Your task to perform on an android device: turn off data saver in the chrome app Image 0: 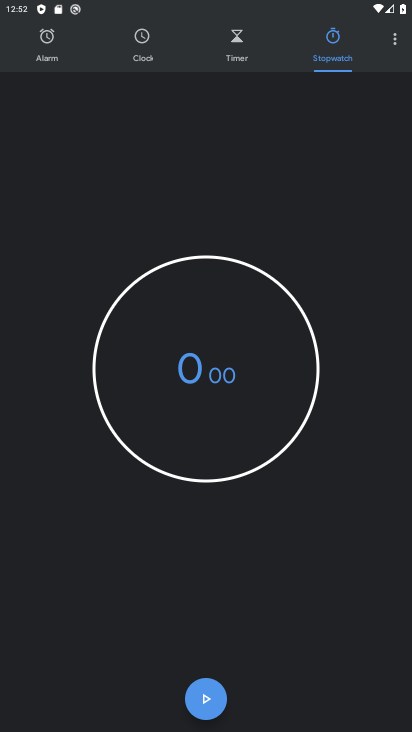
Step 0: press home button
Your task to perform on an android device: turn off data saver in the chrome app Image 1: 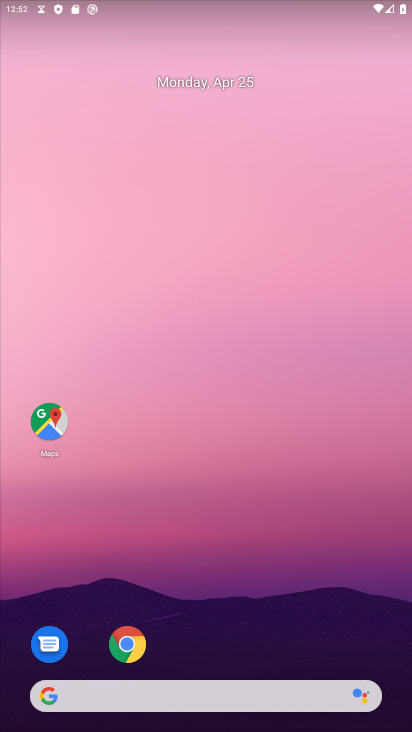
Step 1: click (127, 645)
Your task to perform on an android device: turn off data saver in the chrome app Image 2: 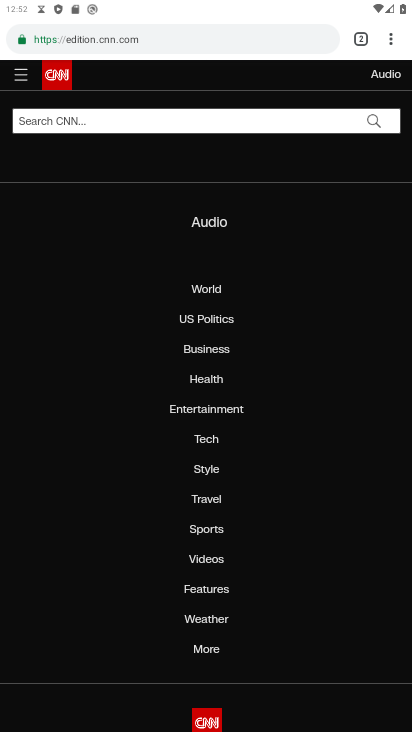
Step 2: drag from (389, 43) to (253, 520)
Your task to perform on an android device: turn off data saver in the chrome app Image 3: 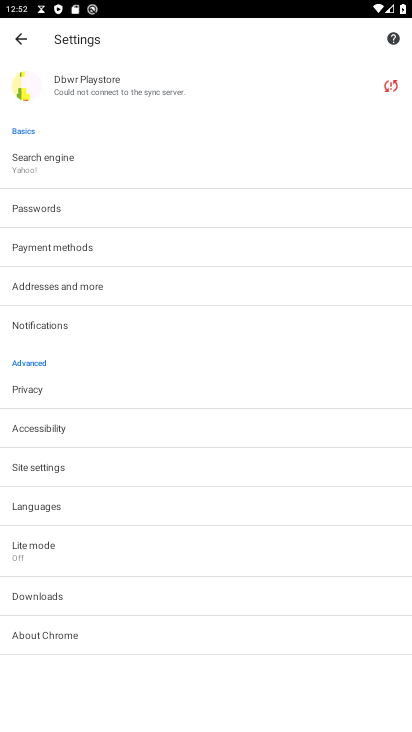
Step 3: click (32, 545)
Your task to perform on an android device: turn off data saver in the chrome app Image 4: 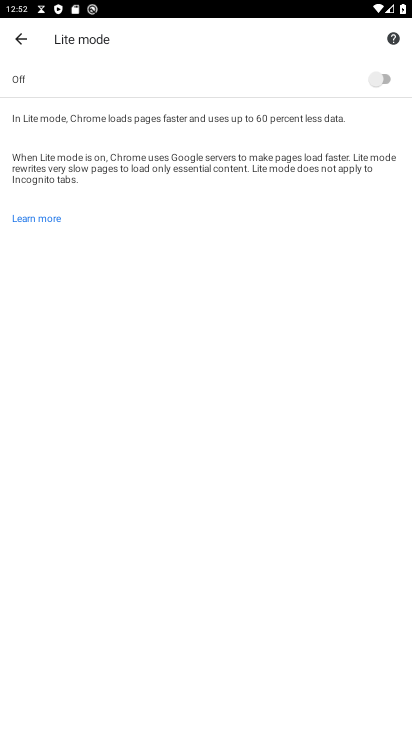
Step 4: task complete